Your task to perform on an android device: Add acer nitro to the cart on bestbuy.com, then select checkout. Image 0: 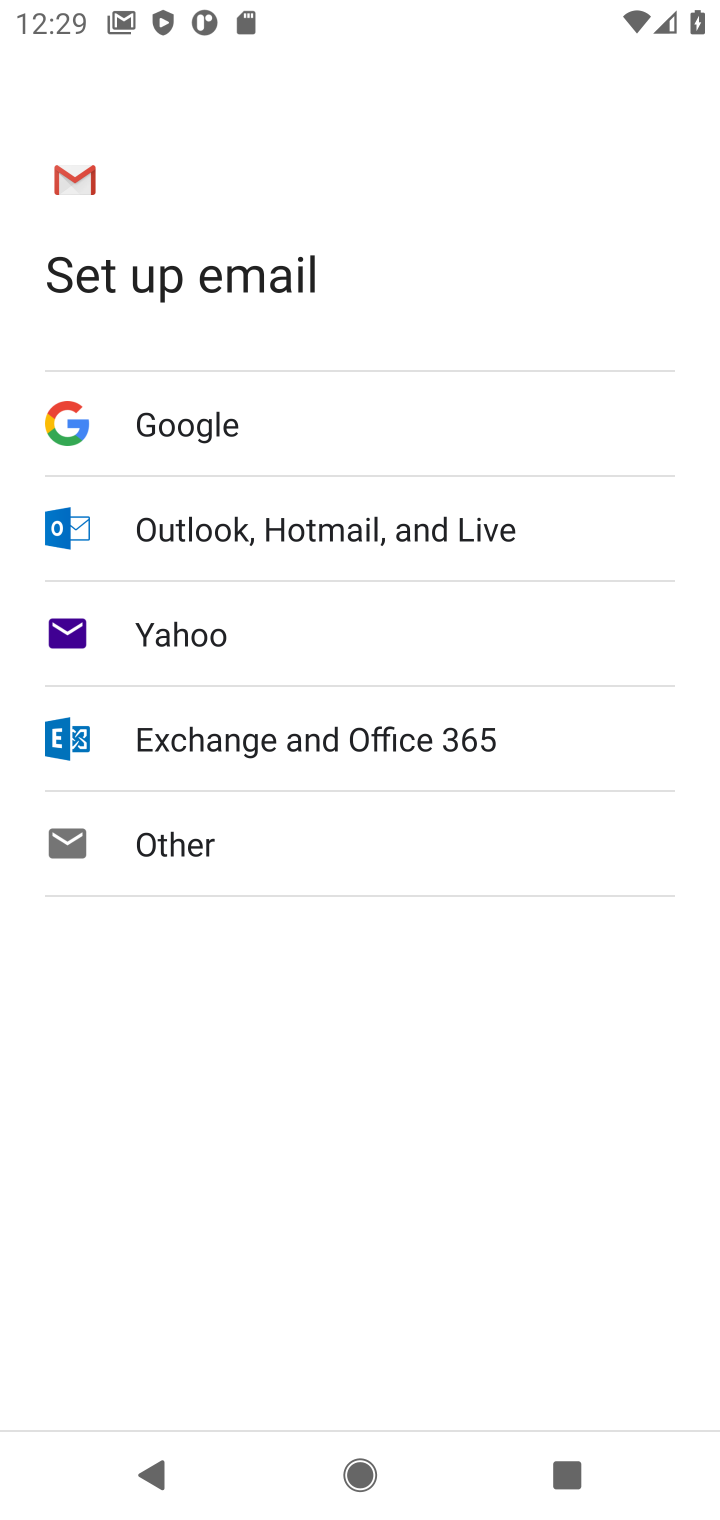
Step 0: press home button
Your task to perform on an android device: Add acer nitro to the cart on bestbuy.com, then select checkout. Image 1: 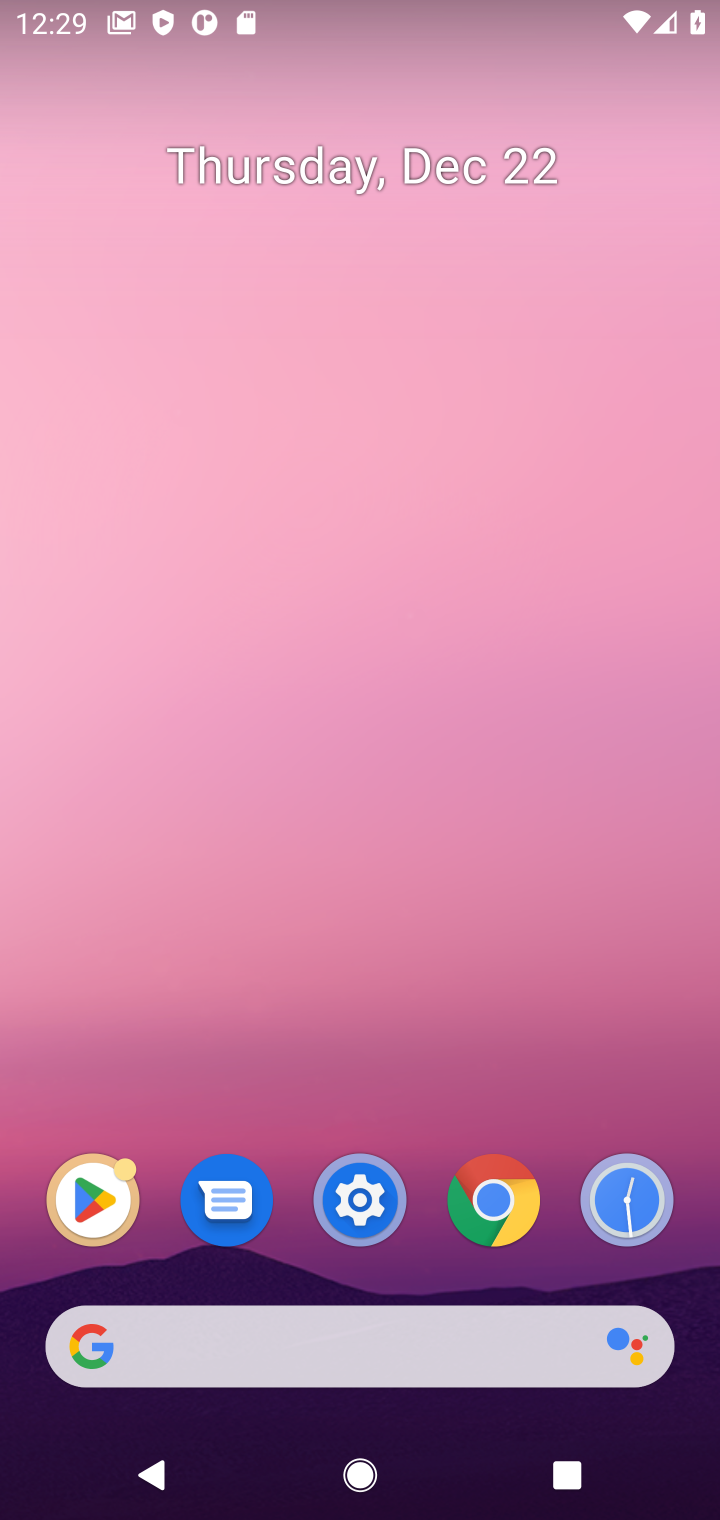
Step 1: click (499, 1207)
Your task to perform on an android device: Add acer nitro to the cart on bestbuy.com, then select checkout. Image 2: 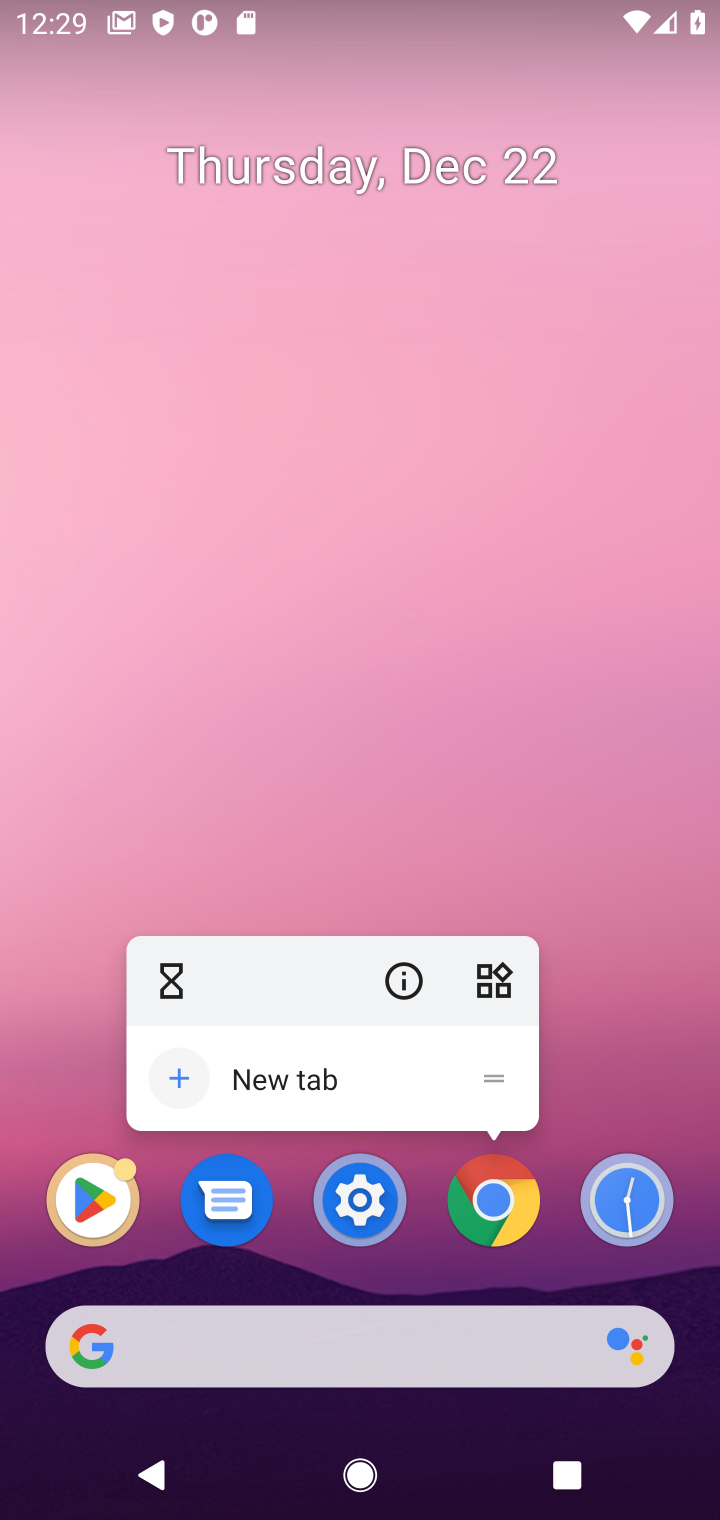
Step 2: click (499, 1207)
Your task to perform on an android device: Add acer nitro to the cart on bestbuy.com, then select checkout. Image 3: 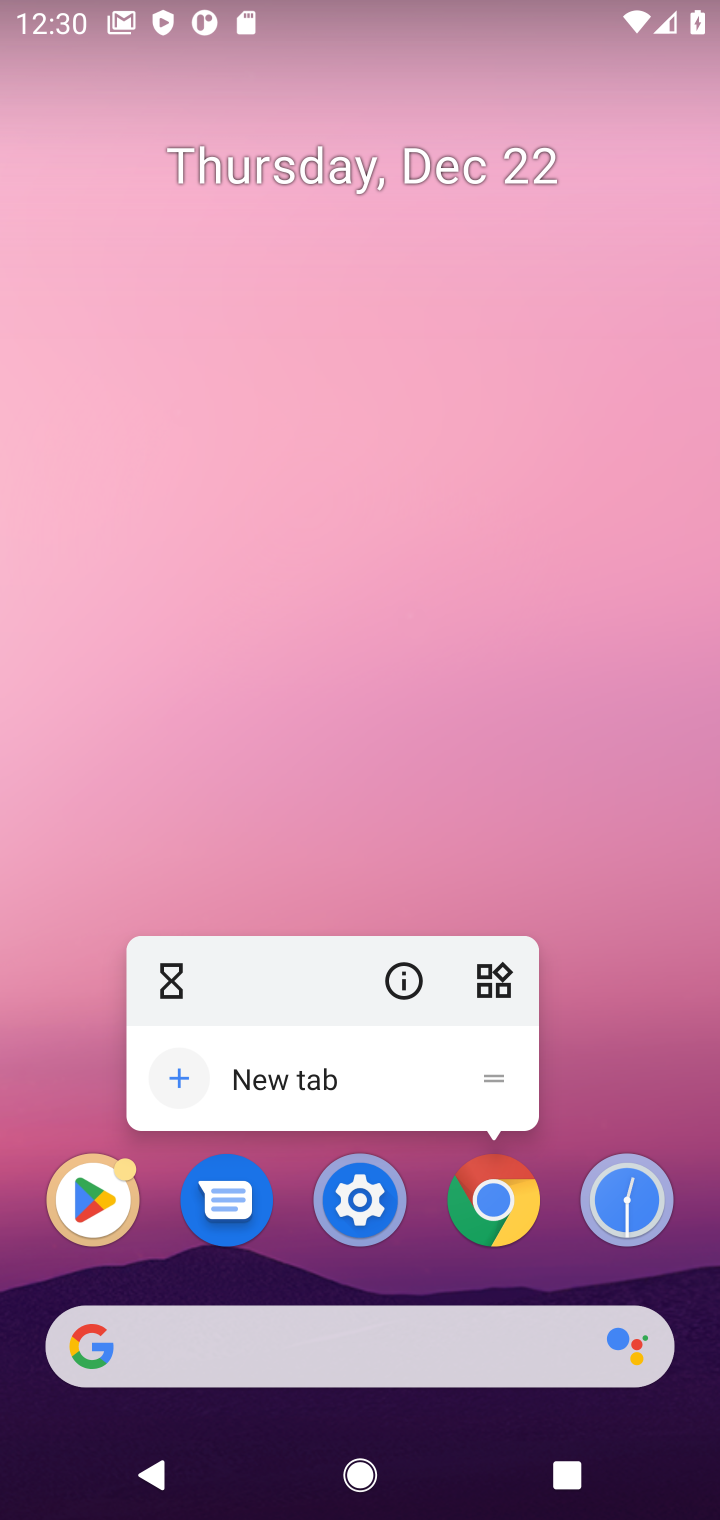
Step 3: click (501, 1204)
Your task to perform on an android device: Add acer nitro to the cart on bestbuy.com, then select checkout. Image 4: 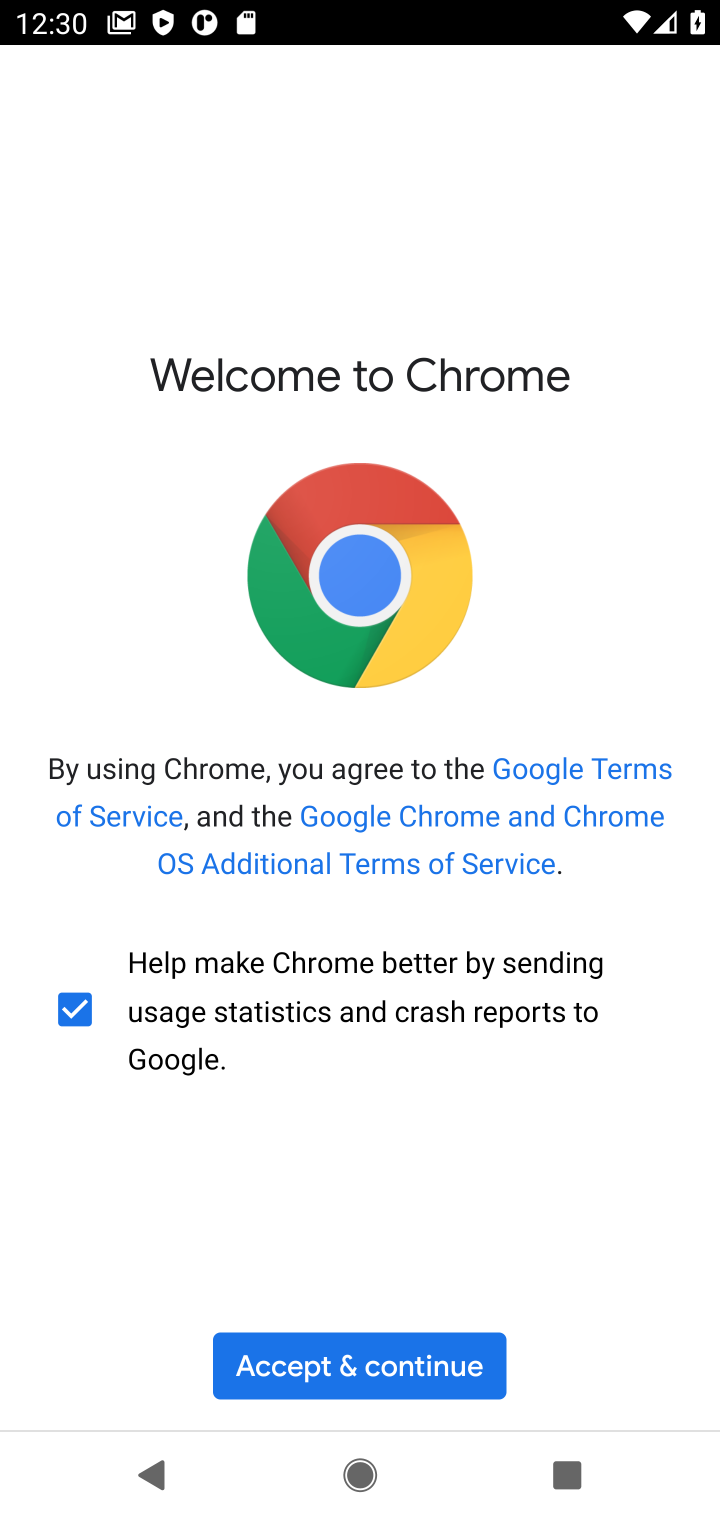
Step 4: click (328, 1376)
Your task to perform on an android device: Add acer nitro to the cart on bestbuy.com, then select checkout. Image 5: 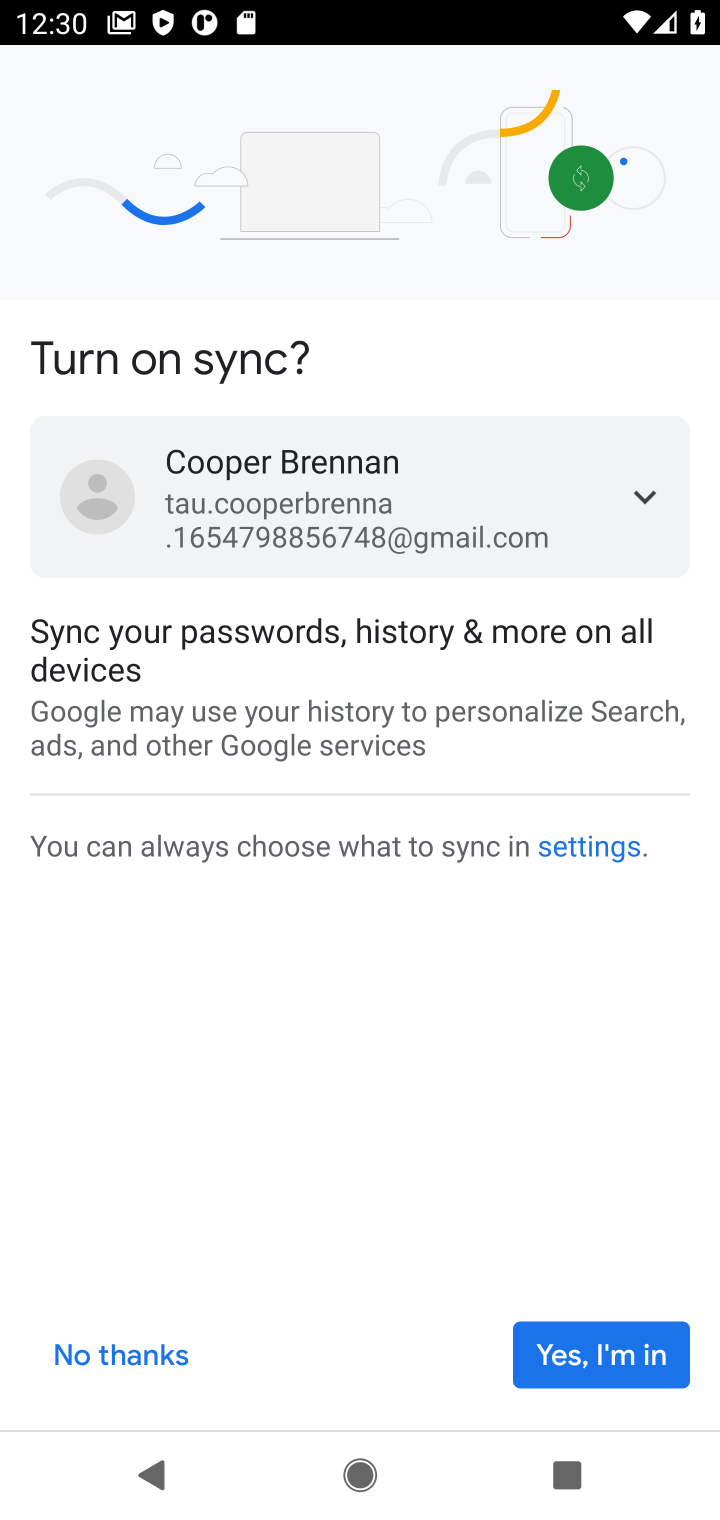
Step 5: click (141, 1356)
Your task to perform on an android device: Add acer nitro to the cart on bestbuy.com, then select checkout. Image 6: 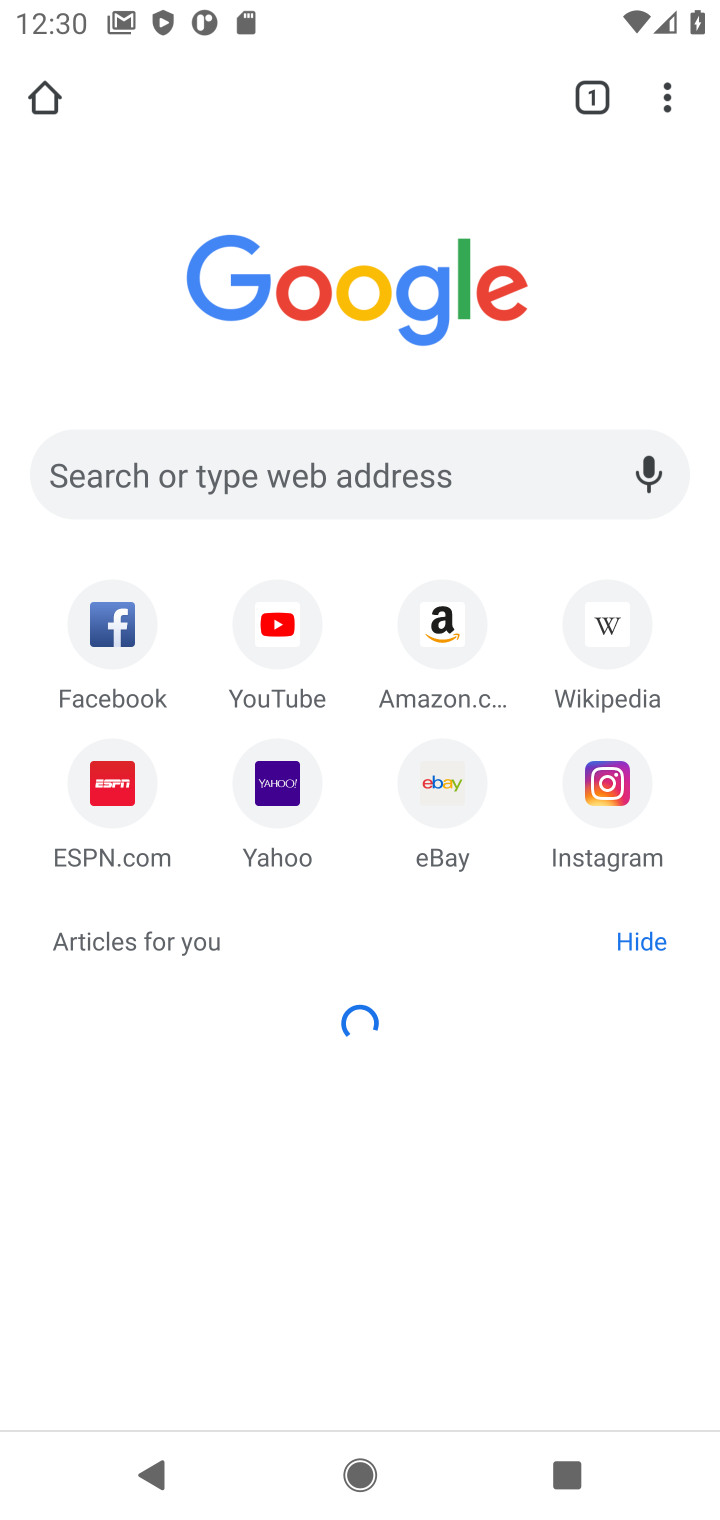
Step 6: click (197, 478)
Your task to perform on an android device: Add acer nitro to the cart on bestbuy.com, then select checkout. Image 7: 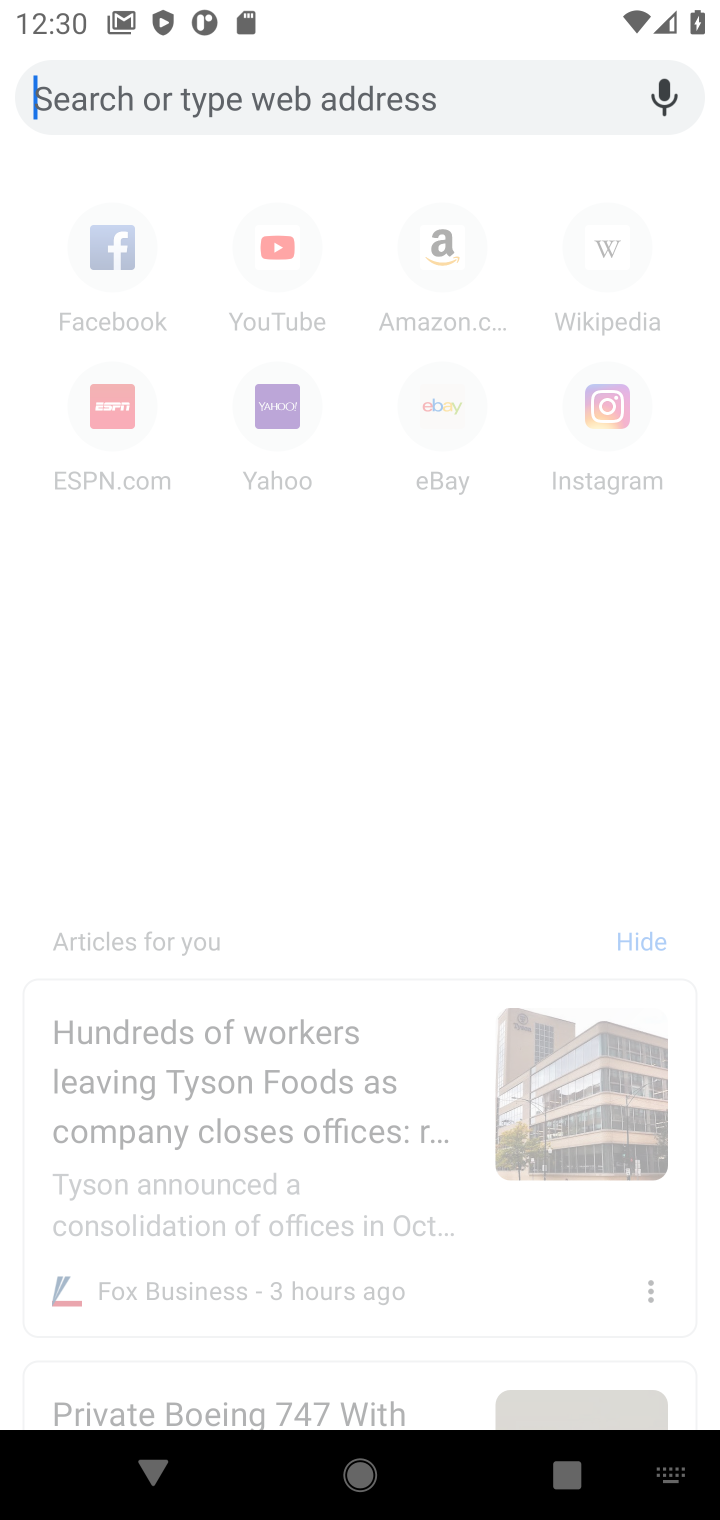
Step 7: type "bestbuy.com"
Your task to perform on an android device: Add acer nitro to the cart on bestbuy.com, then select checkout. Image 8: 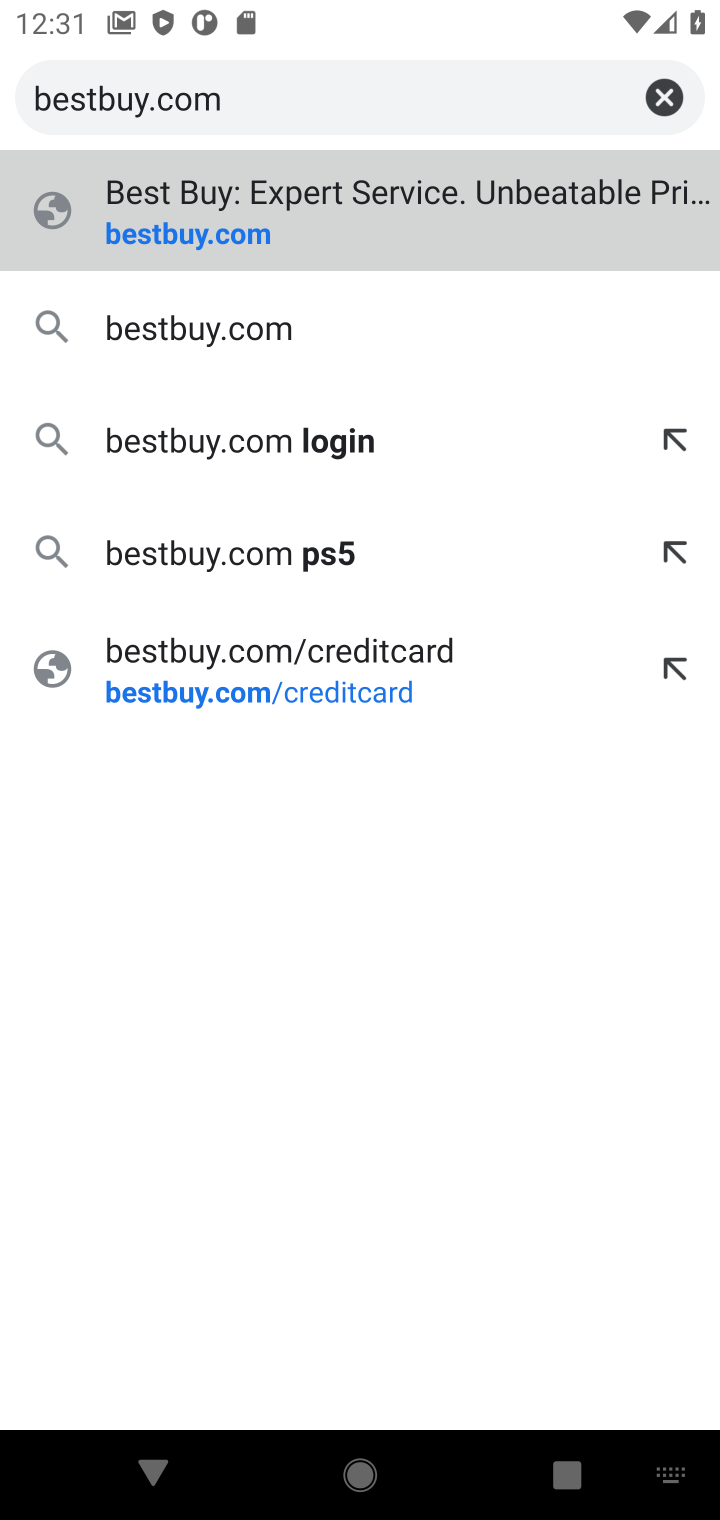
Step 8: click (164, 246)
Your task to perform on an android device: Add acer nitro to the cart on bestbuy.com, then select checkout. Image 9: 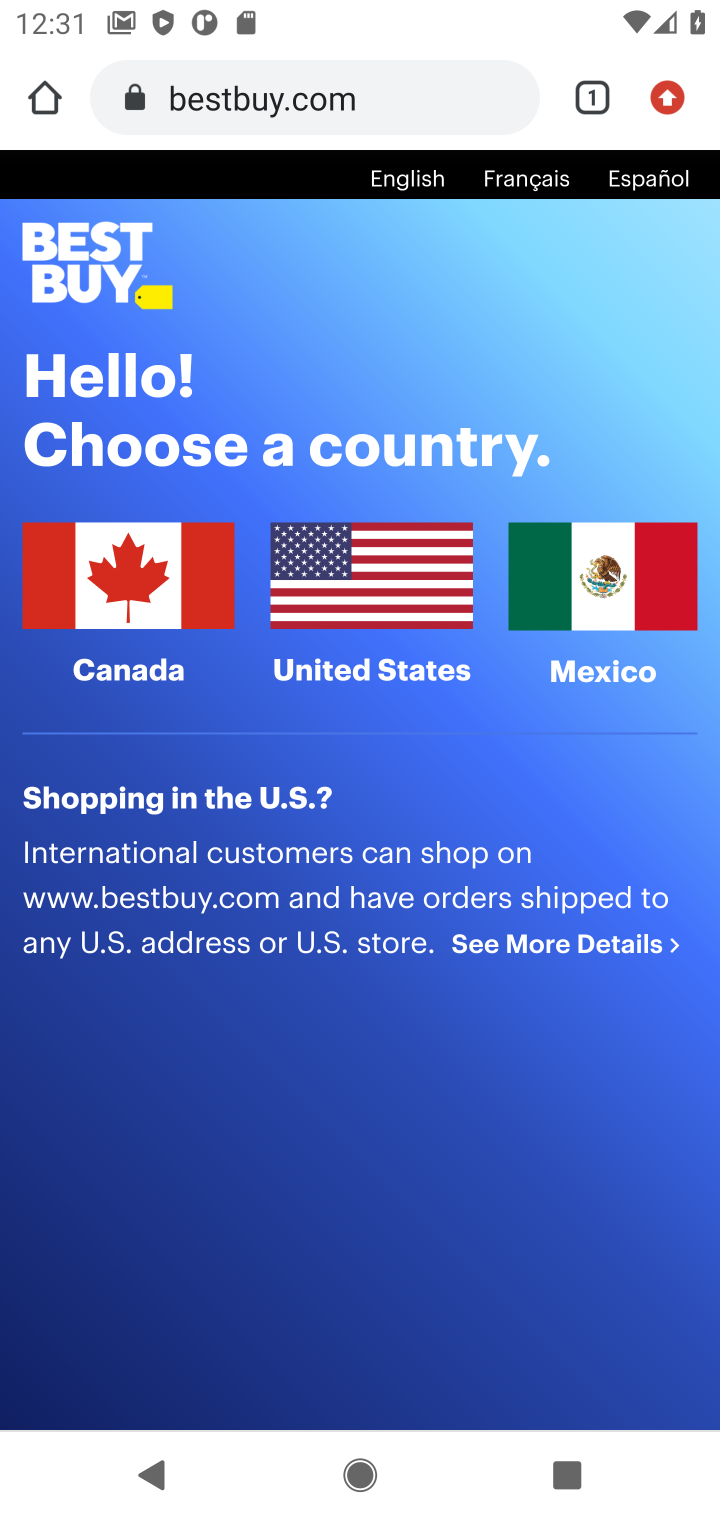
Step 9: click (345, 607)
Your task to perform on an android device: Add acer nitro to the cart on bestbuy.com, then select checkout. Image 10: 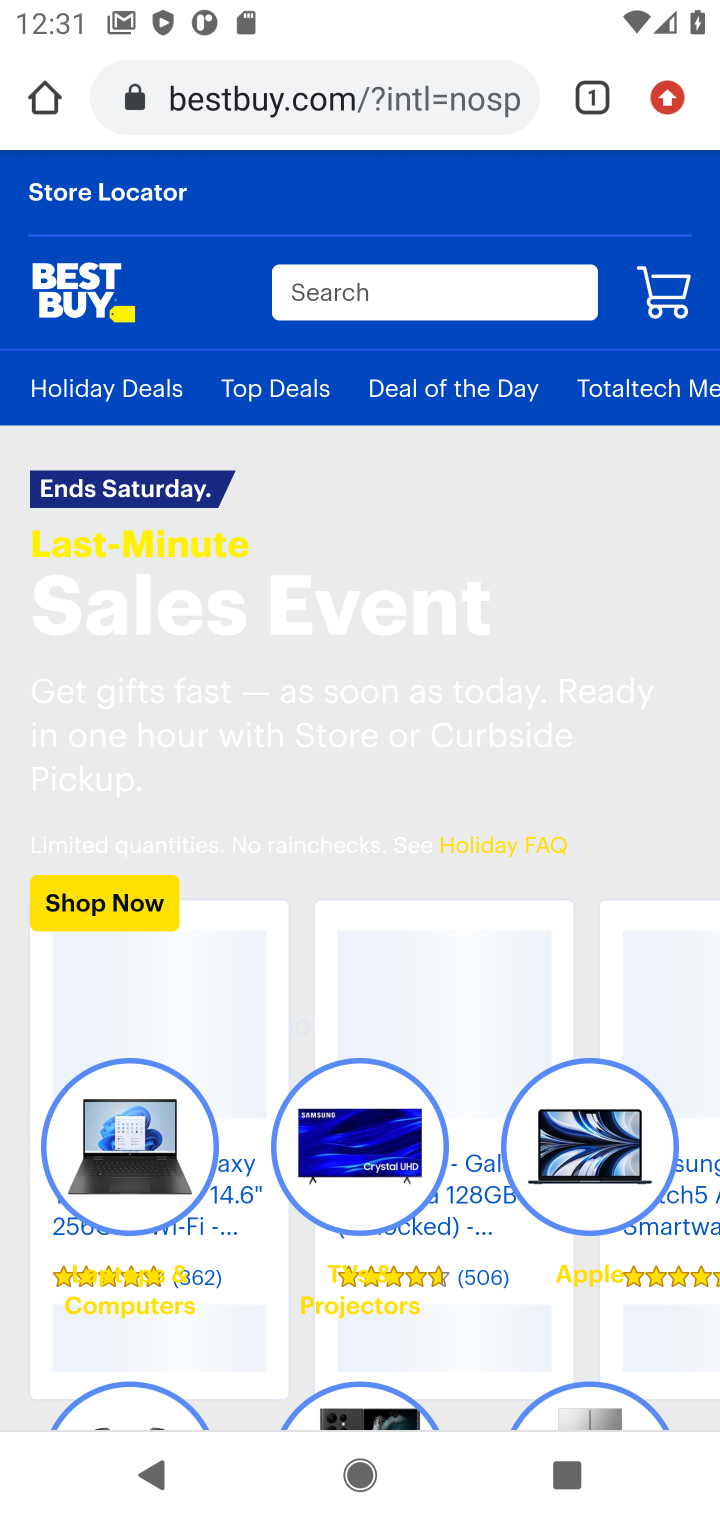
Step 10: click (316, 303)
Your task to perform on an android device: Add acer nitro to the cart on bestbuy.com, then select checkout. Image 11: 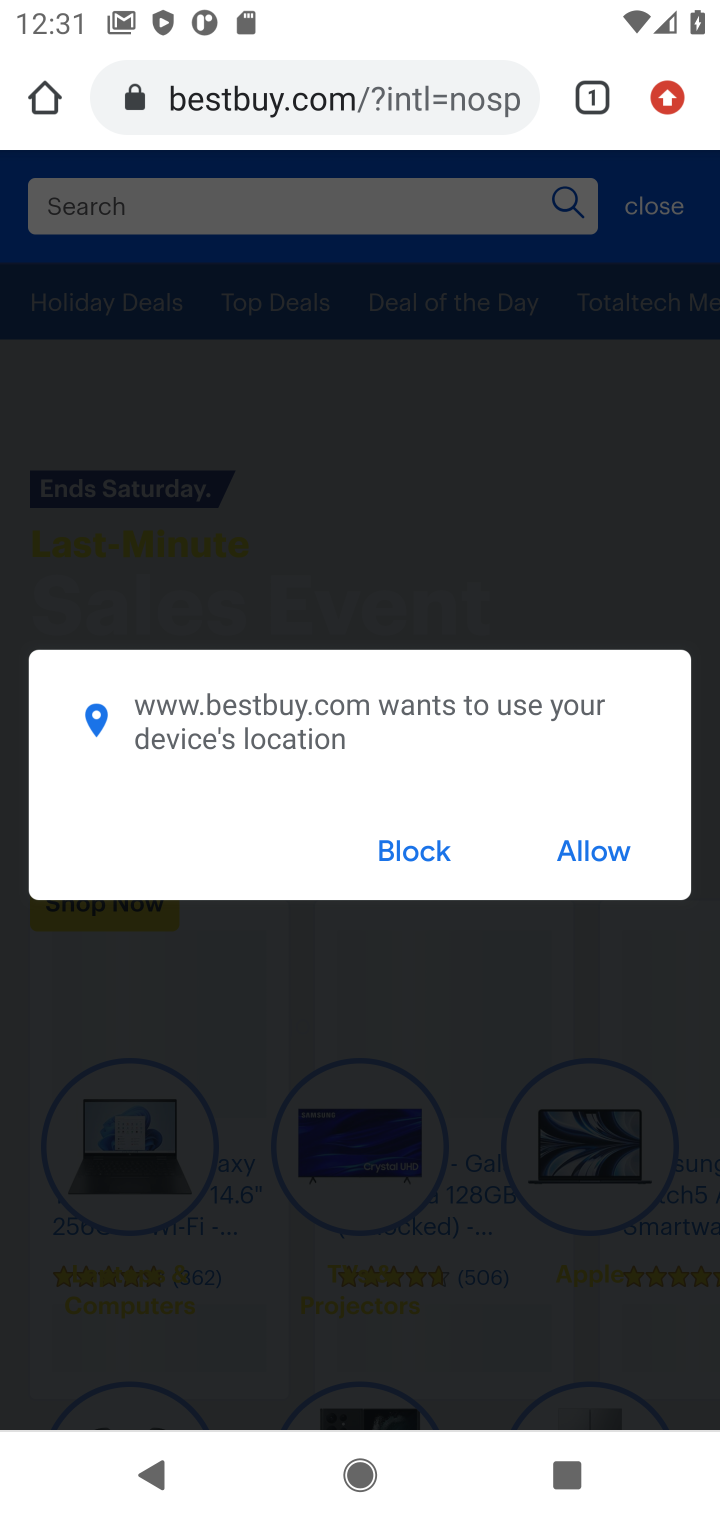
Step 11: type "acer nitro"
Your task to perform on an android device: Add acer nitro to the cart on bestbuy.com, then select checkout. Image 12: 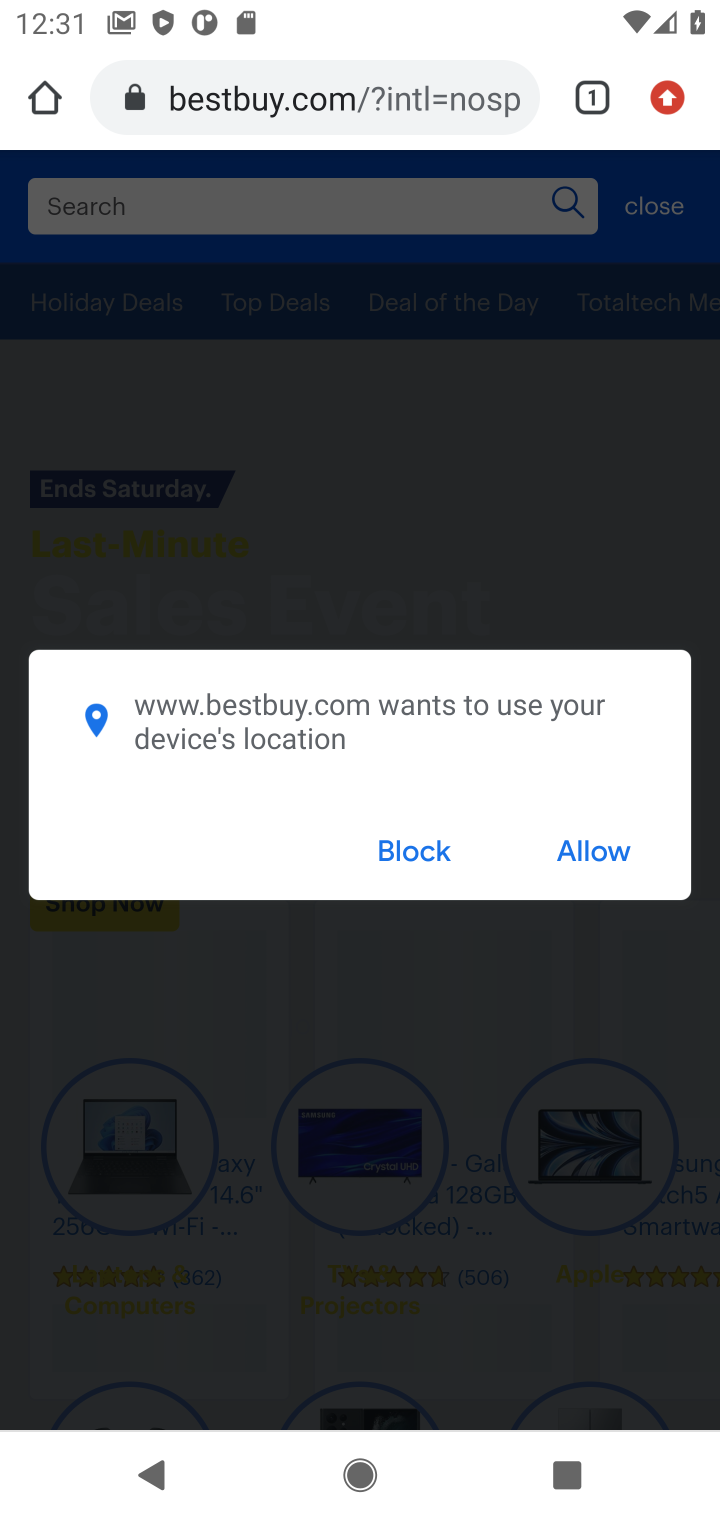
Step 12: click (393, 860)
Your task to perform on an android device: Add acer nitro to the cart on bestbuy.com, then select checkout. Image 13: 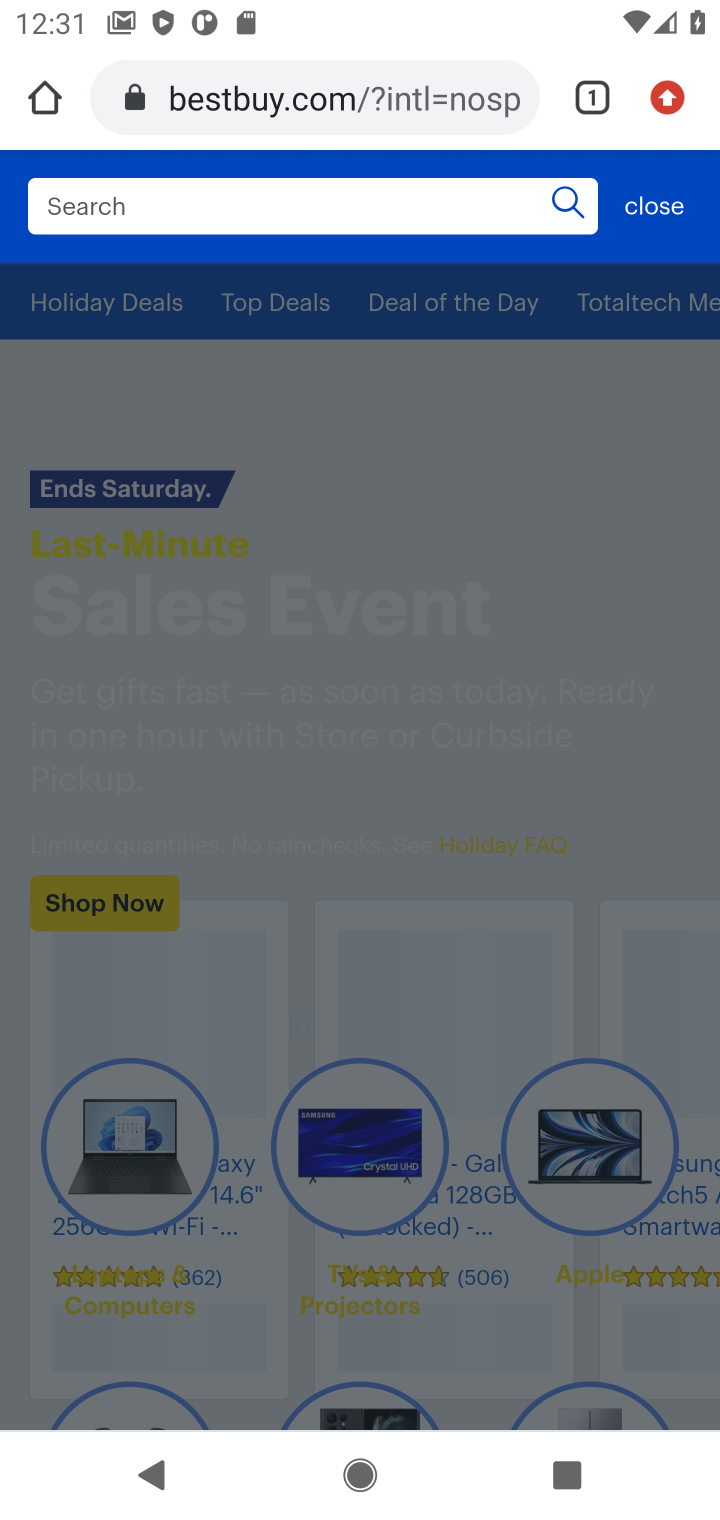
Step 13: click (138, 218)
Your task to perform on an android device: Add acer nitro to the cart on bestbuy.com, then select checkout. Image 14: 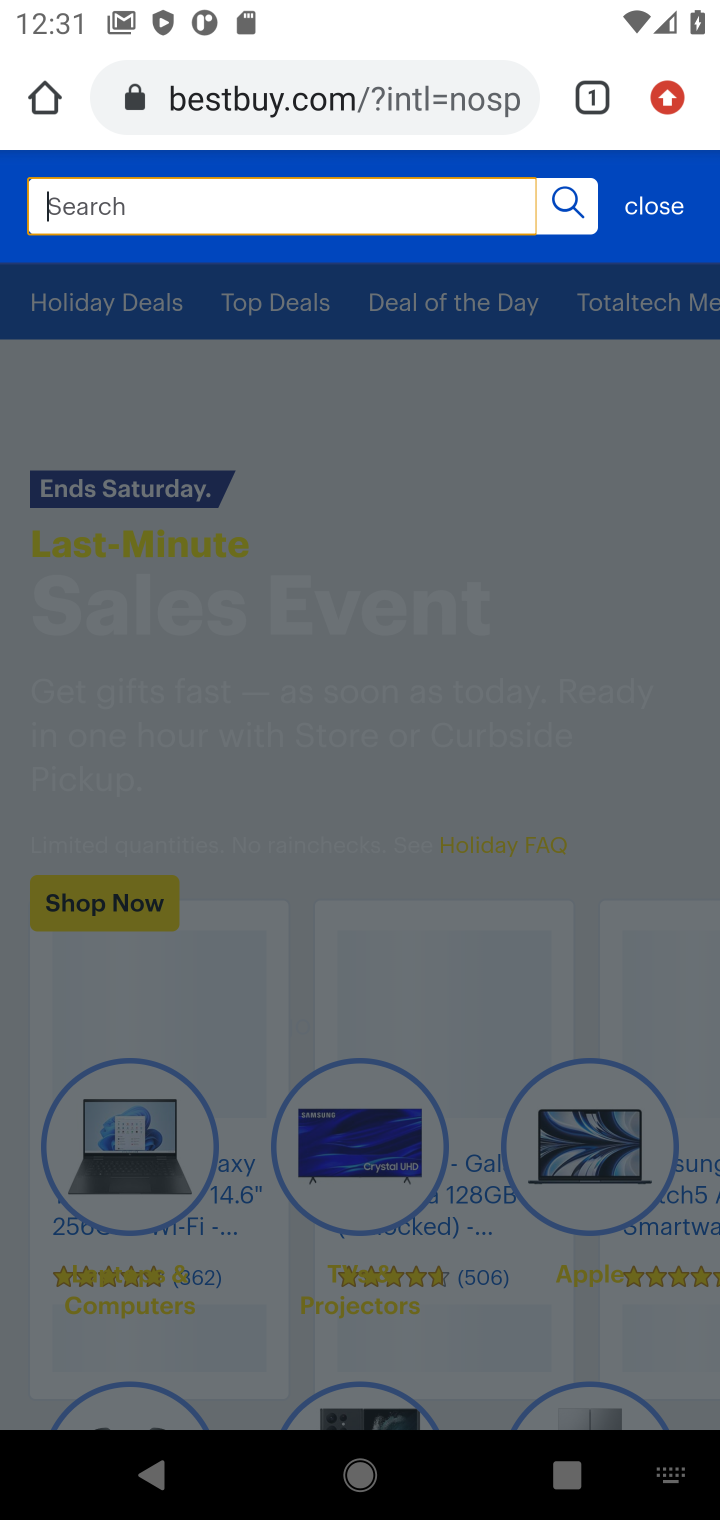
Step 14: type "acer nitro"
Your task to perform on an android device: Add acer nitro to the cart on bestbuy.com, then select checkout. Image 15: 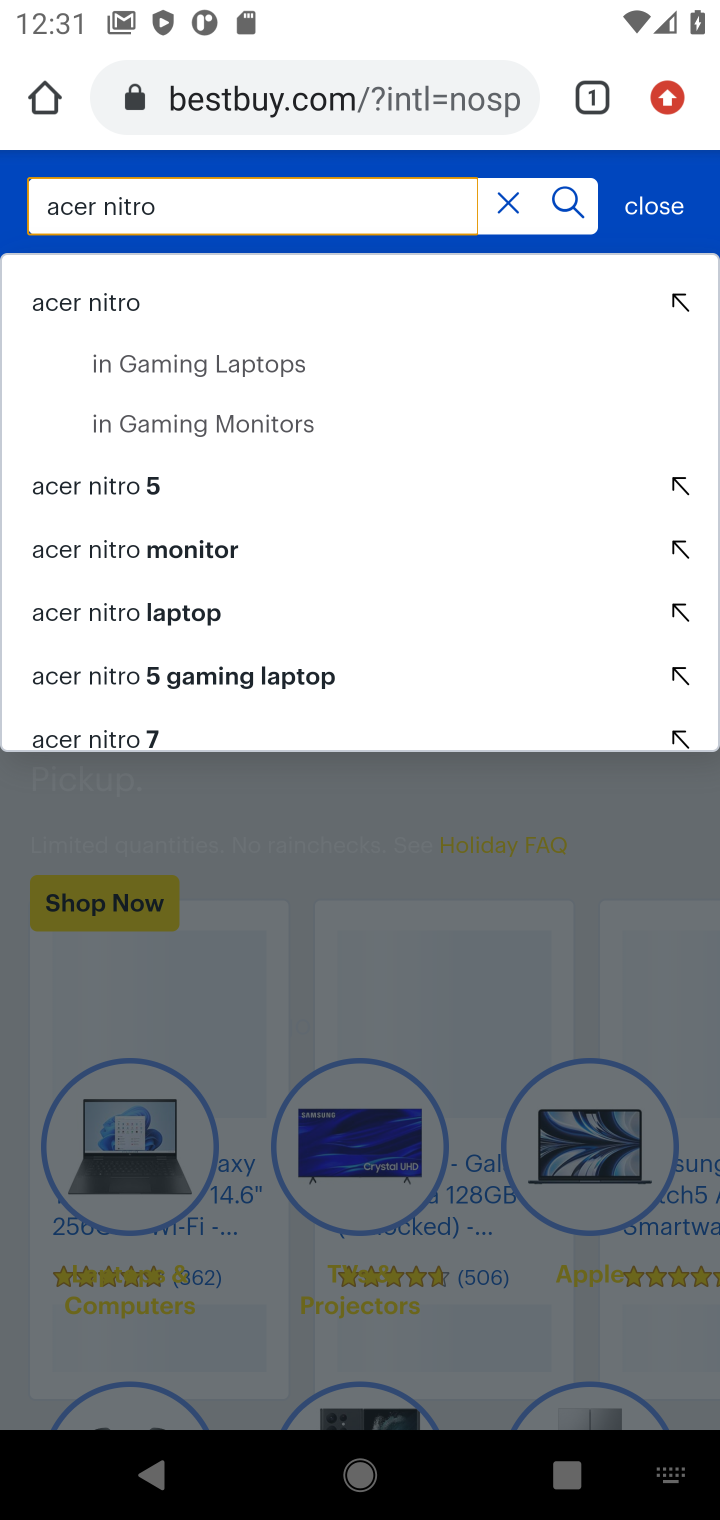
Step 15: click (81, 319)
Your task to perform on an android device: Add acer nitro to the cart on bestbuy.com, then select checkout. Image 16: 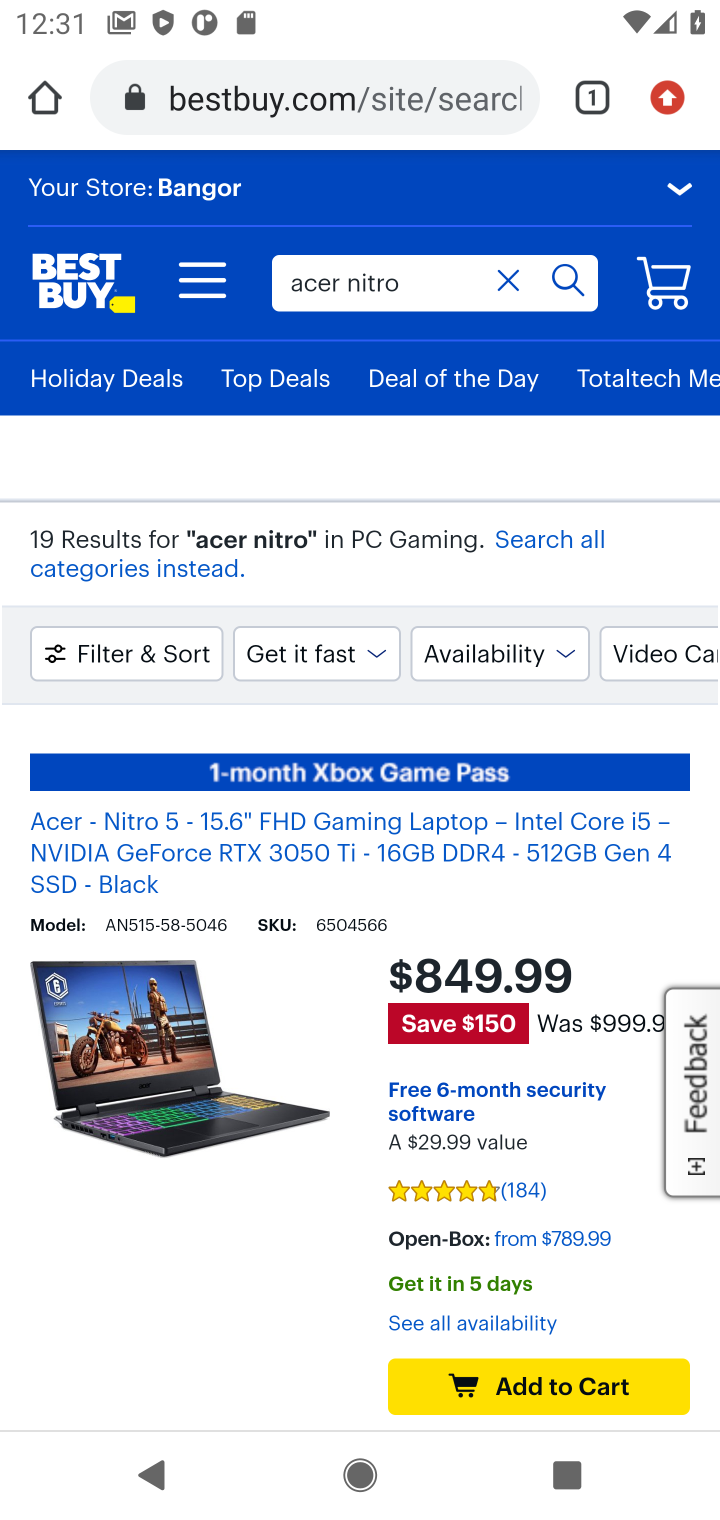
Step 16: click (496, 1387)
Your task to perform on an android device: Add acer nitro to the cart on bestbuy.com, then select checkout. Image 17: 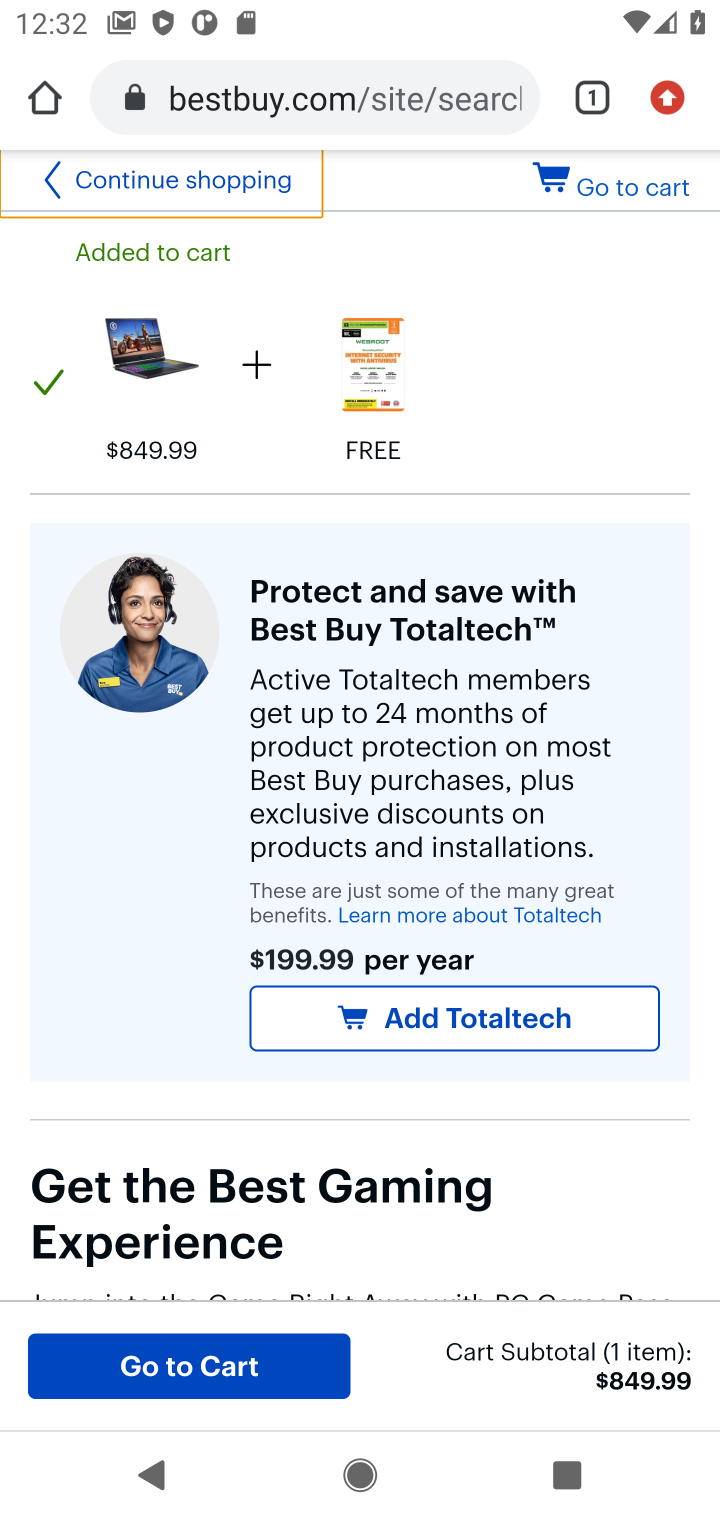
Step 17: click (635, 199)
Your task to perform on an android device: Add acer nitro to the cart on bestbuy.com, then select checkout. Image 18: 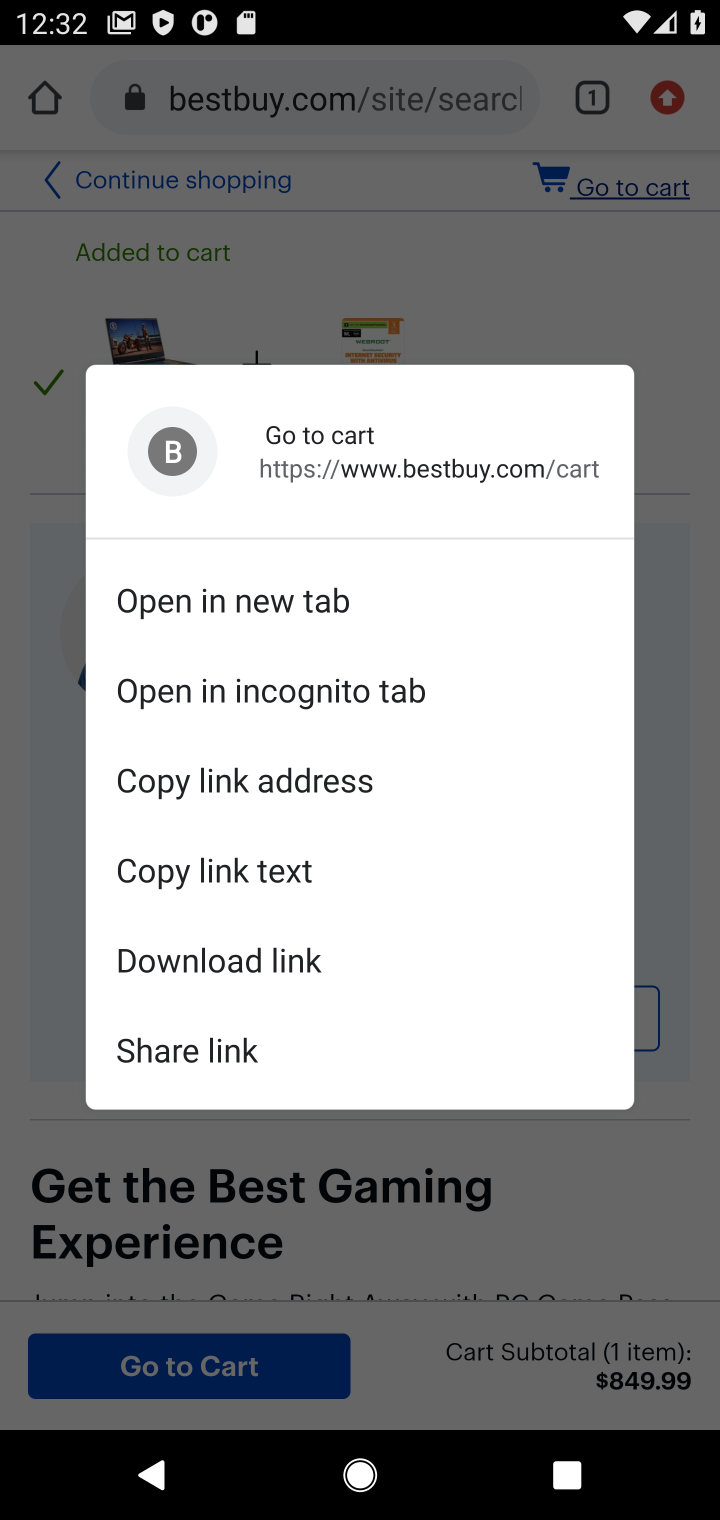
Step 18: click (635, 199)
Your task to perform on an android device: Add acer nitro to the cart on bestbuy.com, then select checkout. Image 19: 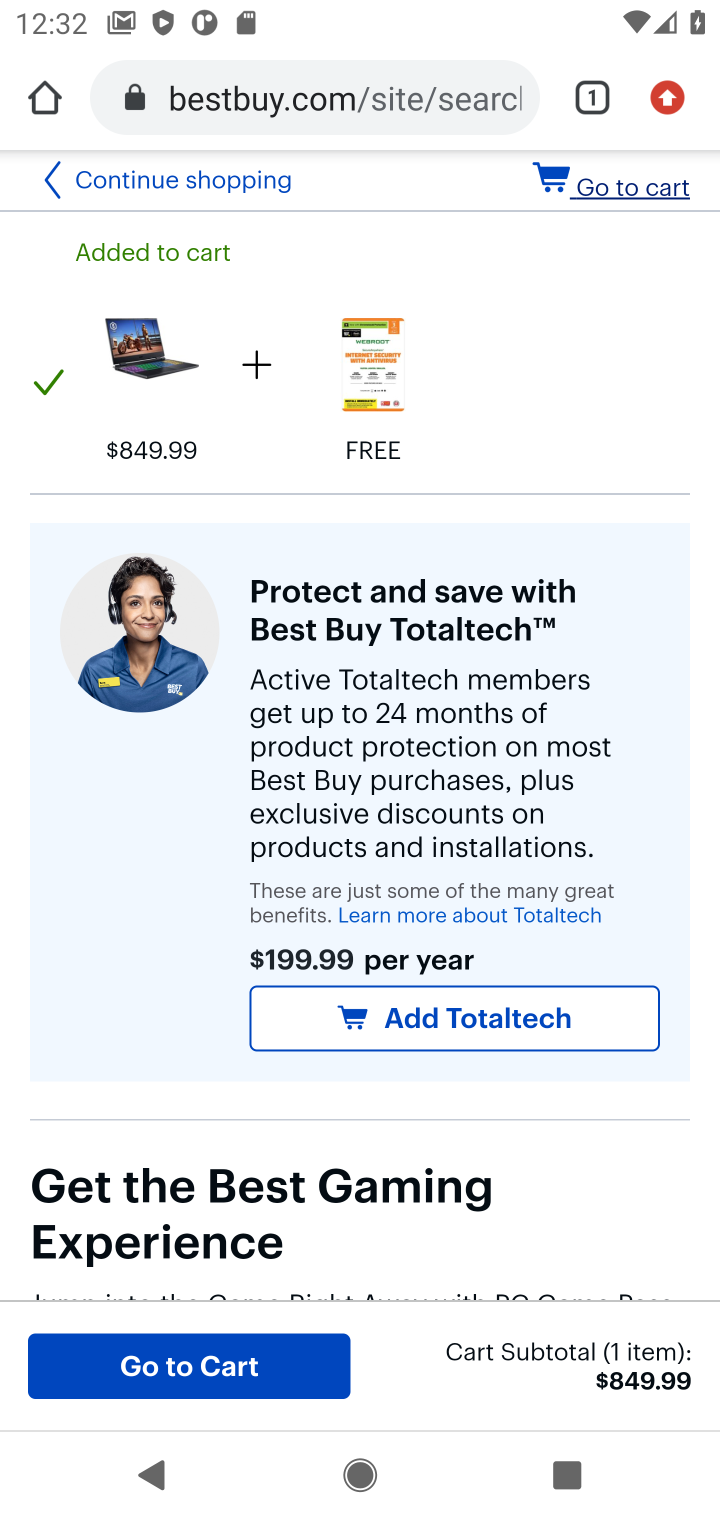
Step 19: click (635, 199)
Your task to perform on an android device: Add acer nitro to the cart on bestbuy.com, then select checkout. Image 20: 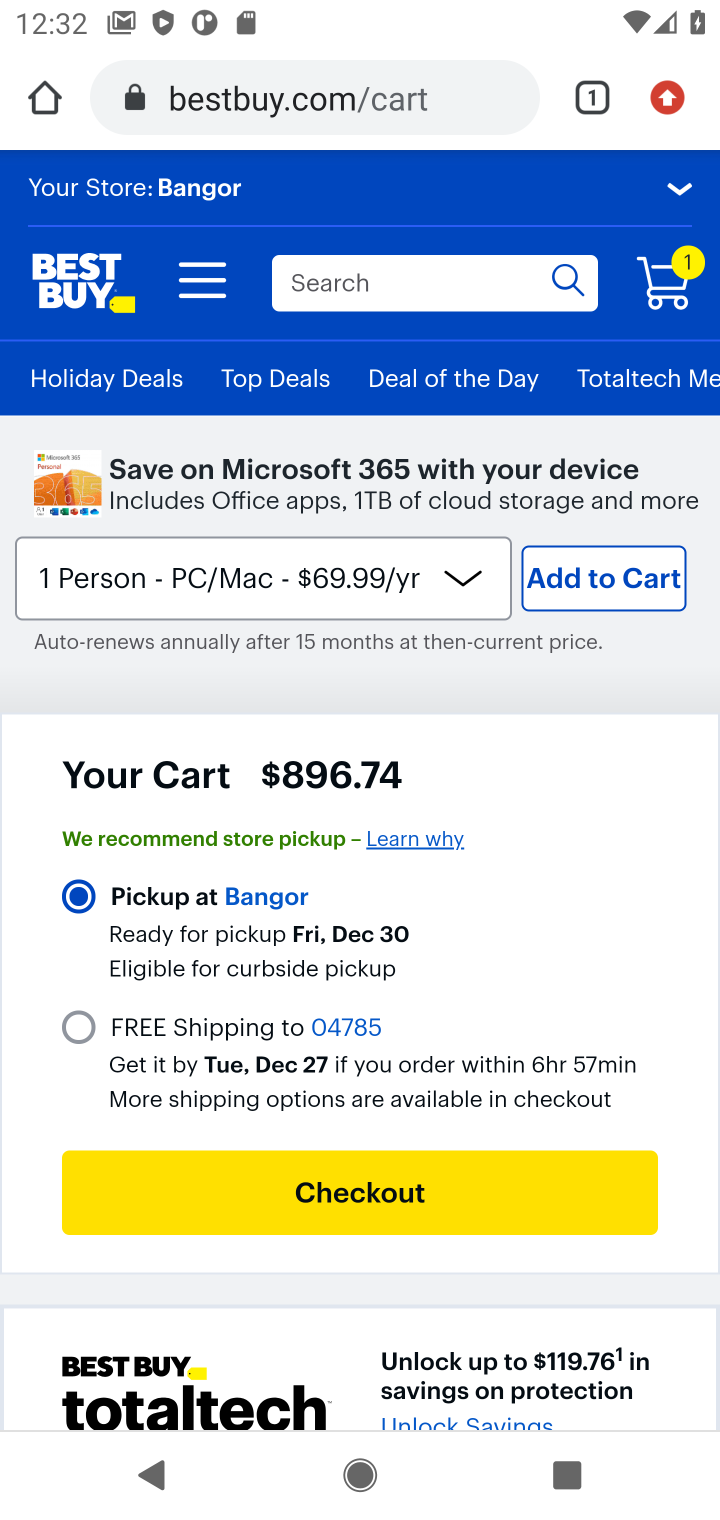
Step 20: click (335, 1198)
Your task to perform on an android device: Add acer nitro to the cart on bestbuy.com, then select checkout. Image 21: 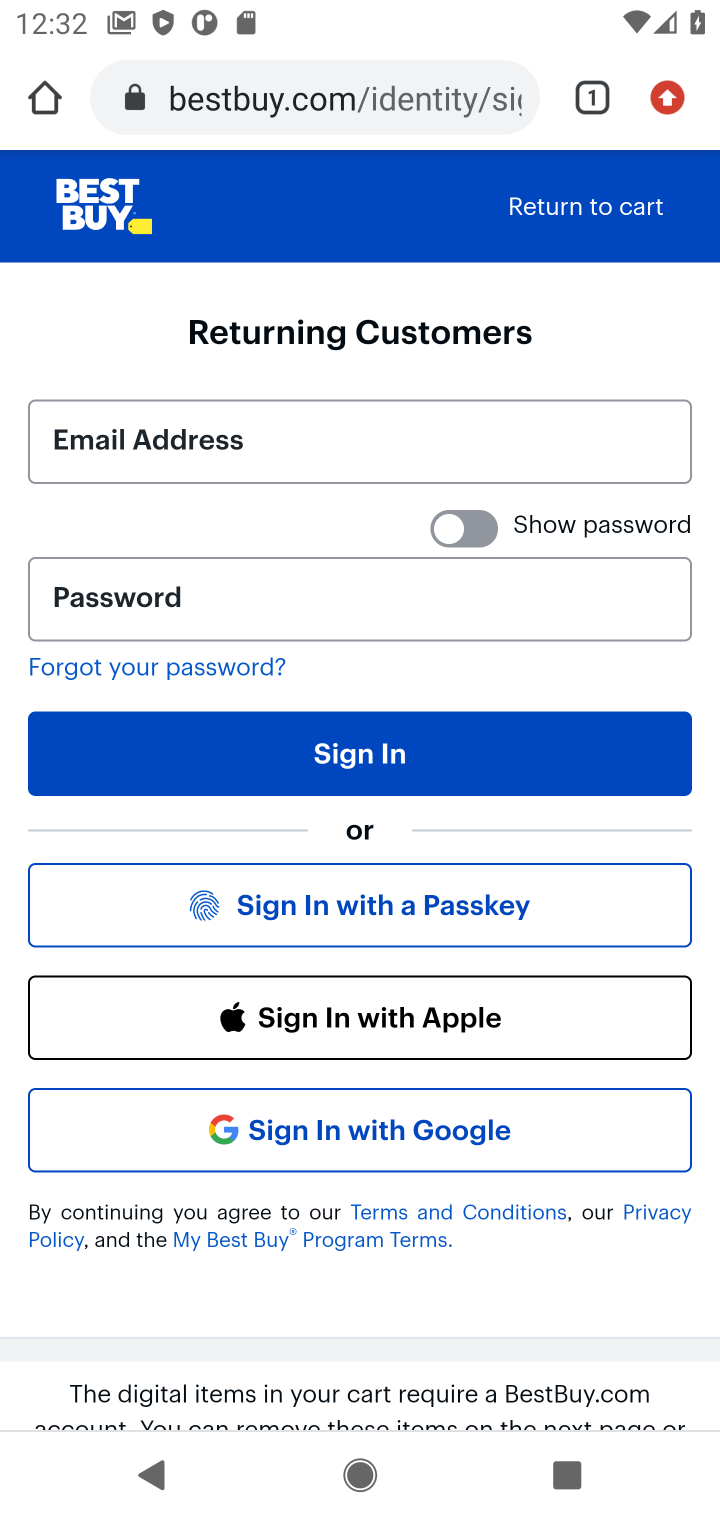
Step 21: task complete